Your task to perform on an android device: Go to location settings Image 0: 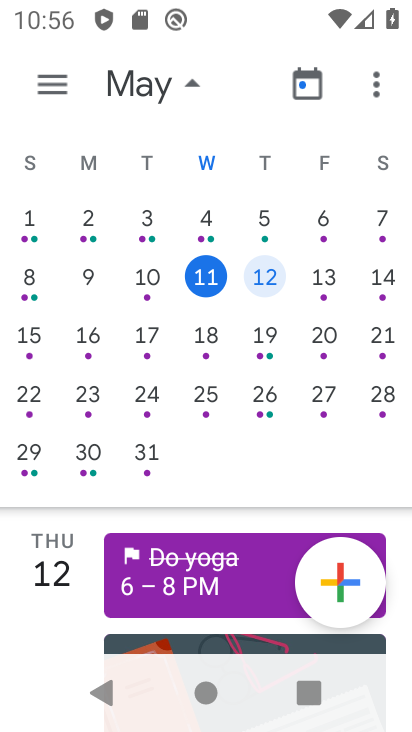
Step 0: press home button
Your task to perform on an android device: Go to location settings Image 1: 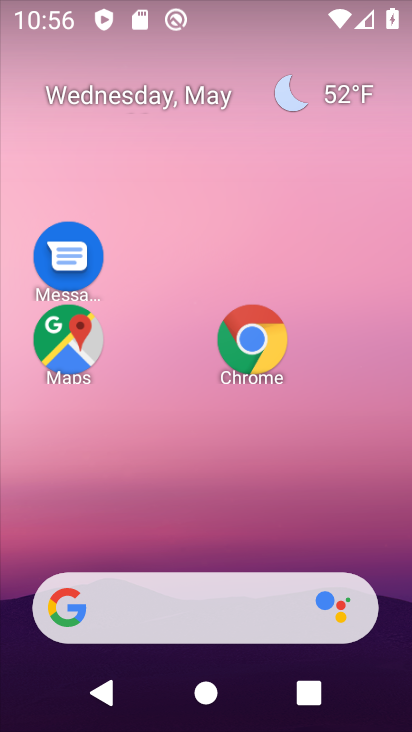
Step 1: drag from (215, 510) to (131, 8)
Your task to perform on an android device: Go to location settings Image 2: 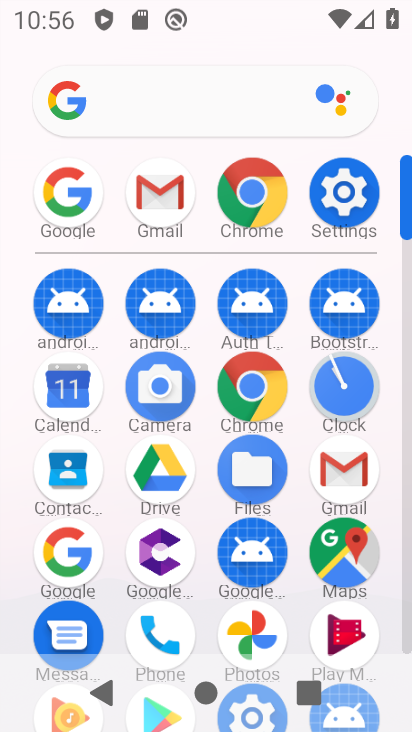
Step 2: click (344, 190)
Your task to perform on an android device: Go to location settings Image 3: 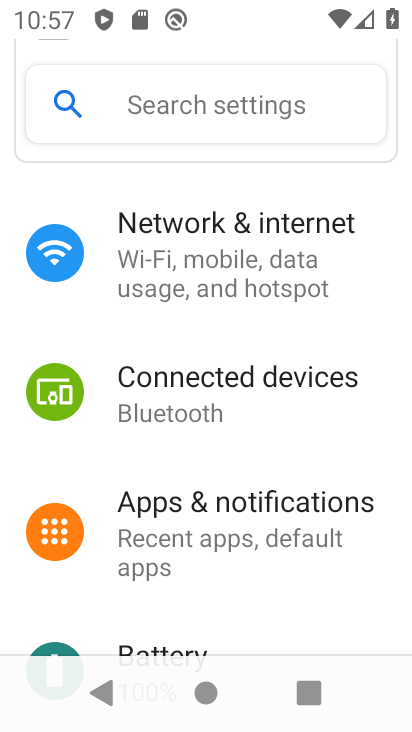
Step 3: drag from (248, 534) to (220, 0)
Your task to perform on an android device: Go to location settings Image 4: 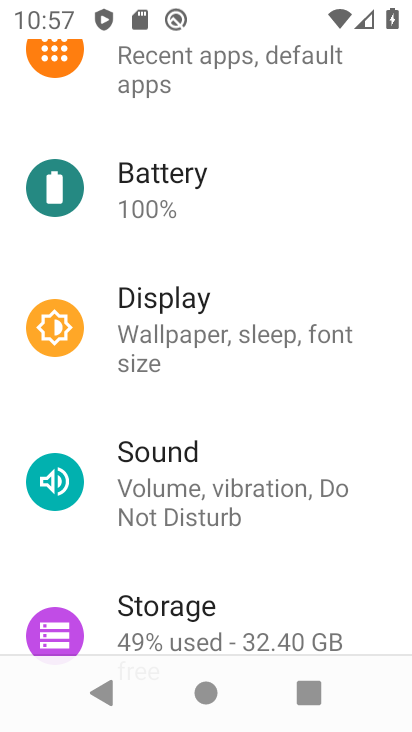
Step 4: drag from (233, 561) to (218, 120)
Your task to perform on an android device: Go to location settings Image 5: 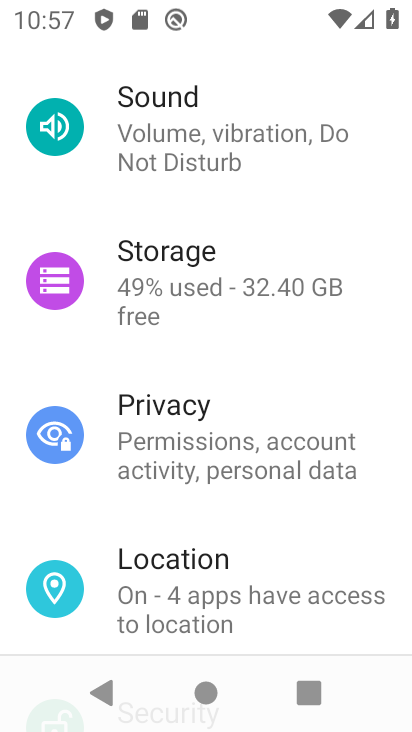
Step 5: click (195, 600)
Your task to perform on an android device: Go to location settings Image 6: 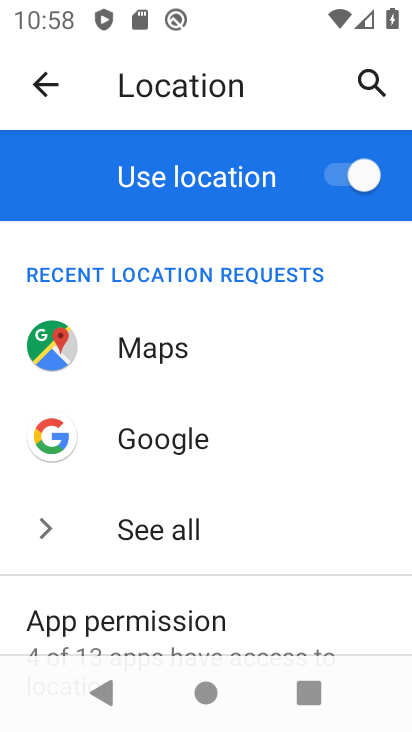
Step 6: task complete